Your task to perform on an android device: Open the calendar and show me this week's events? Image 0: 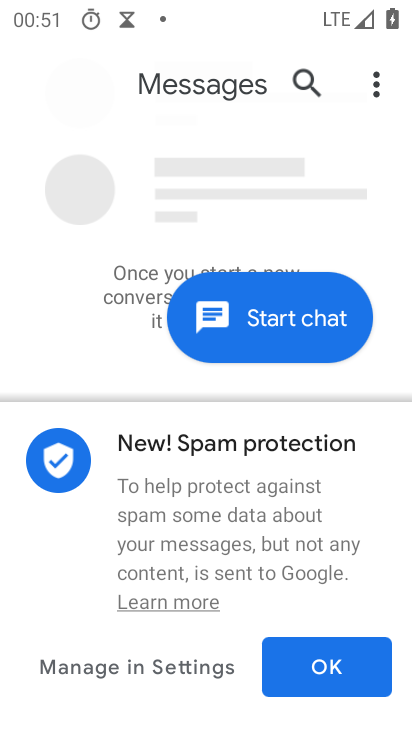
Step 0: press home button
Your task to perform on an android device: Open the calendar and show me this week's events? Image 1: 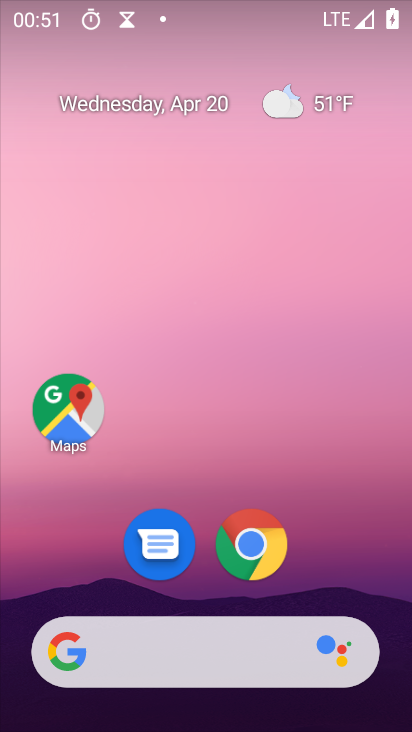
Step 1: drag from (317, 562) to (386, 63)
Your task to perform on an android device: Open the calendar and show me this week's events? Image 2: 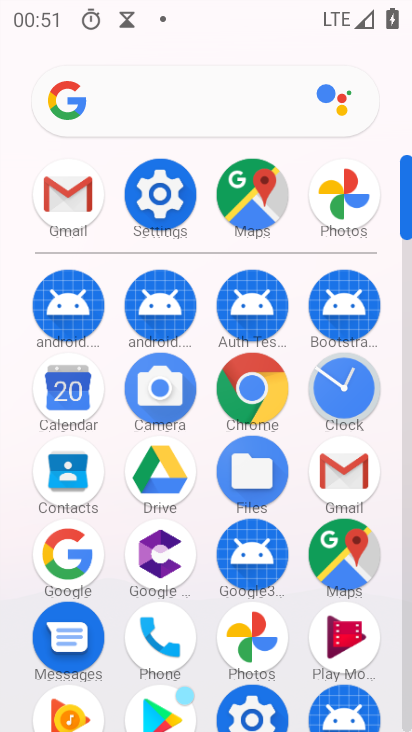
Step 2: click (64, 395)
Your task to perform on an android device: Open the calendar and show me this week's events? Image 3: 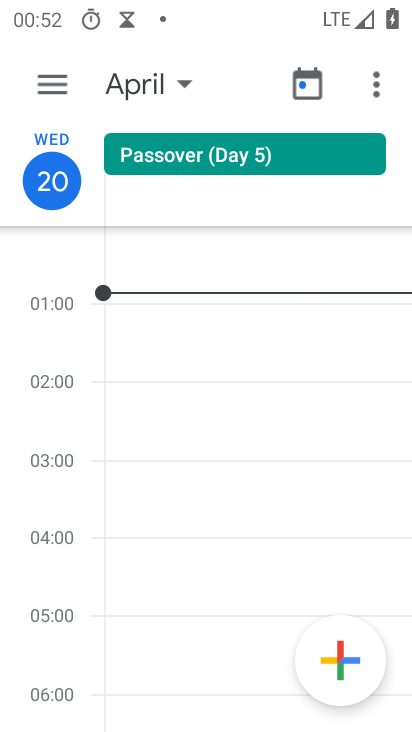
Step 3: click (64, 393)
Your task to perform on an android device: Open the calendar and show me this week's events? Image 4: 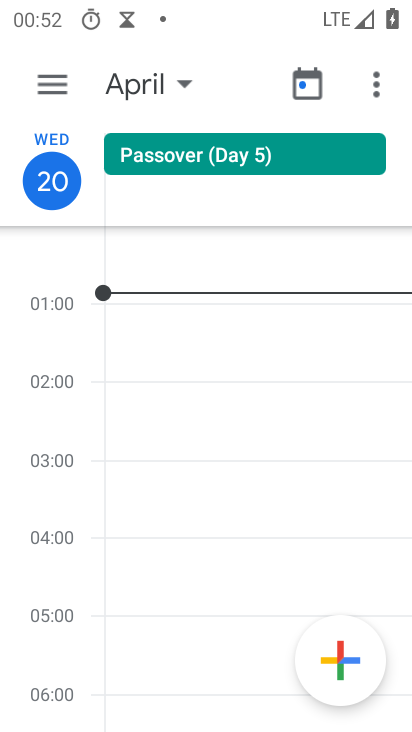
Step 4: click (141, 84)
Your task to perform on an android device: Open the calendar and show me this week's events? Image 5: 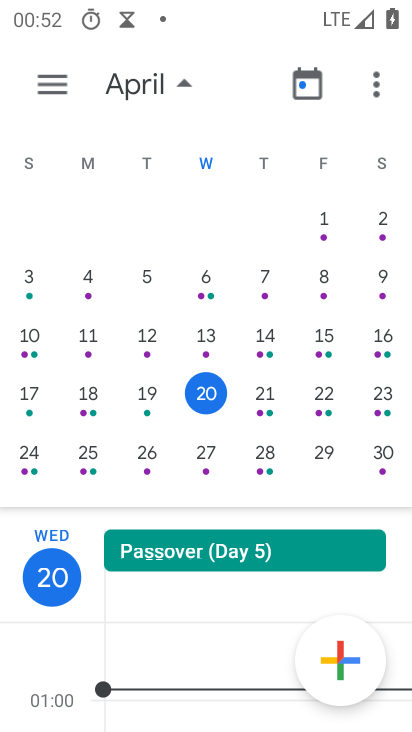
Step 5: click (278, 409)
Your task to perform on an android device: Open the calendar and show me this week's events? Image 6: 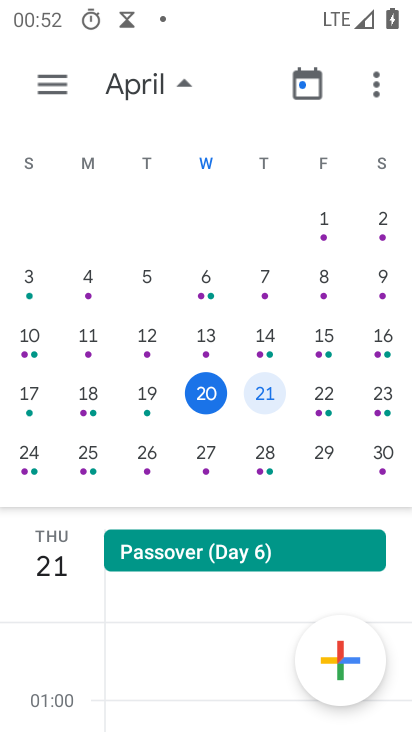
Step 6: click (324, 403)
Your task to perform on an android device: Open the calendar and show me this week's events? Image 7: 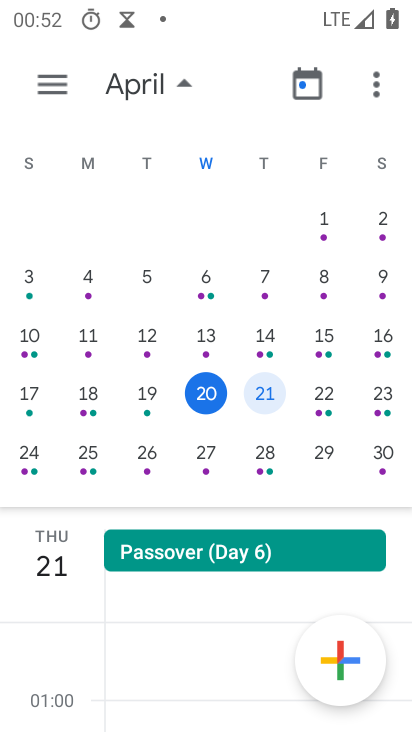
Step 7: click (339, 405)
Your task to perform on an android device: Open the calendar and show me this week's events? Image 8: 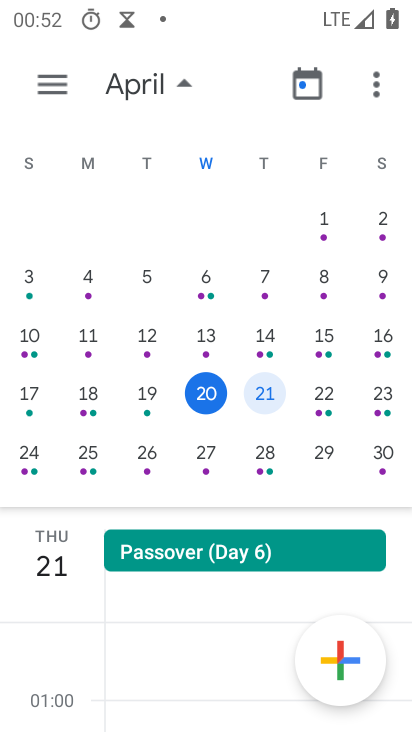
Step 8: click (336, 409)
Your task to perform on an android device: Open the calendar and show me this week's events? Image 9: 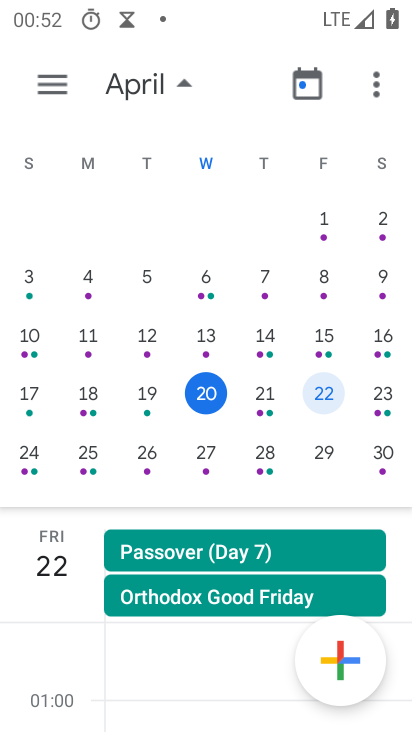
Step 9: click (385, 409)
Your task to perform on an android device: Open the calendar and show me this week's events? Image 10: 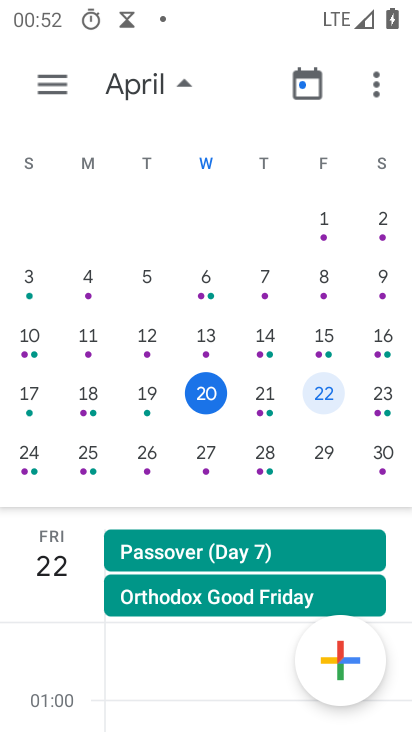
Step 10: click (392, 407)
Your task to perform on an android device: Open the calendar and show me this week's events? Image 11: 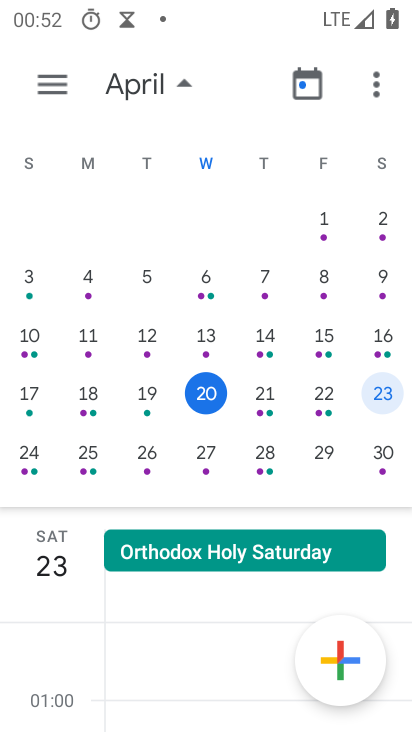
Step 11: task complete